Your task to perform on an android device: turn on airplane mode Image 0: 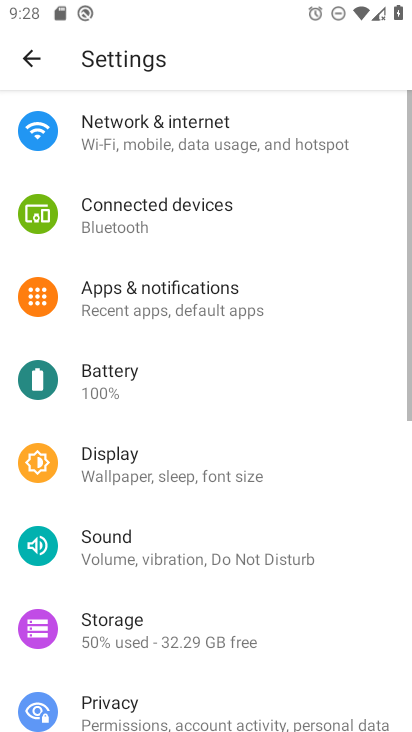
Step 0: press home button
Your task to perform on an android device: turn on airplane mode Image 1: 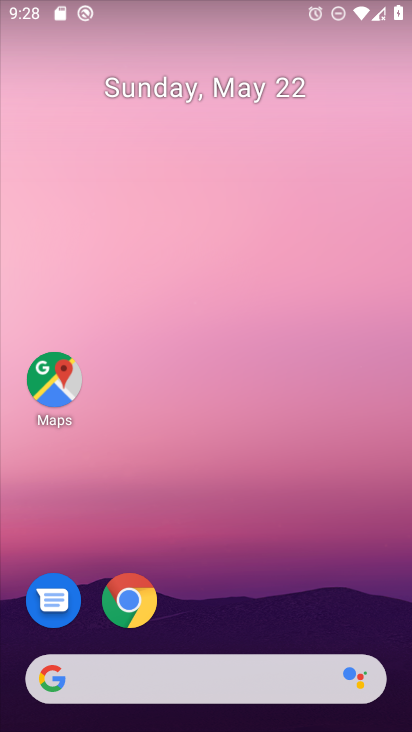
Step 1: drag from (240, 661) to (279, 272)
Your task to perform on an android device: turn on airplane mode Image 2: 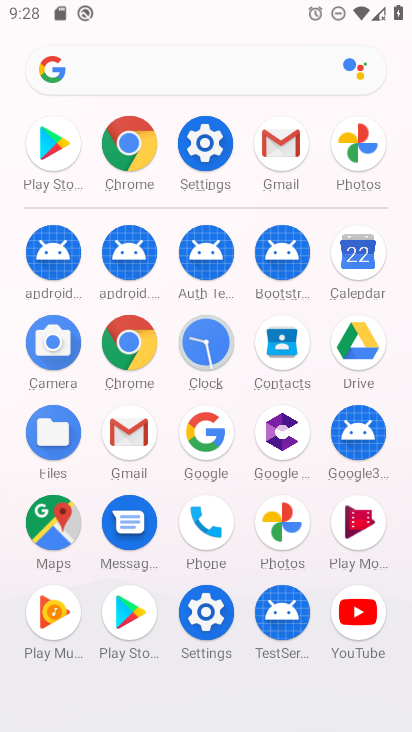
Step 2: click (204, 178)
Your task to perform on an android device: turn on airplane mode Image 3: 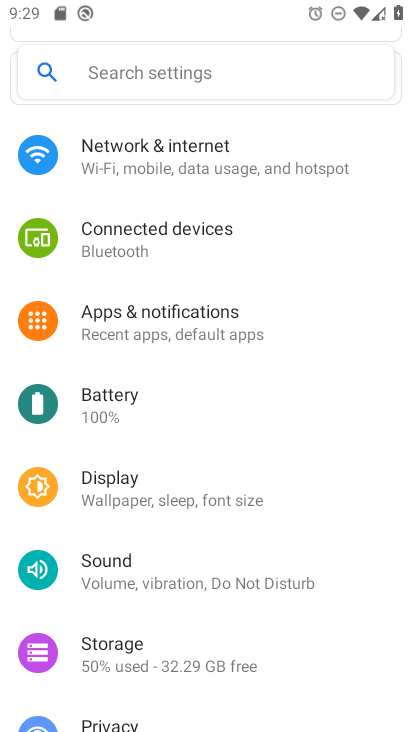
Step 3: click (264, 177)
Your task to perform on an android device: turn on airplane mode Image 4: 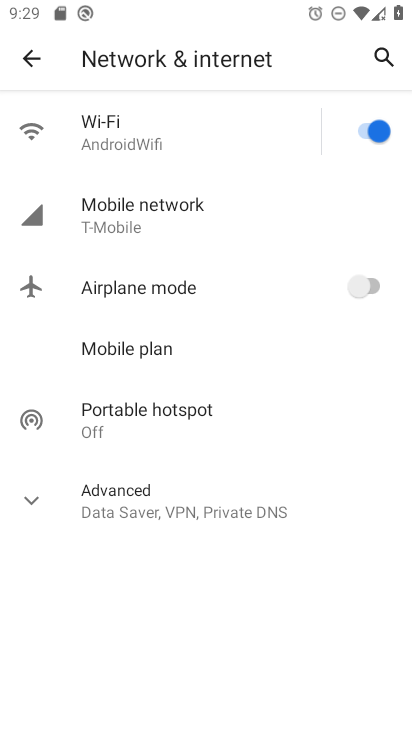
Step 4: click (242, 285)
Your task to perform on an android device: turn on airplane mode Image 5: 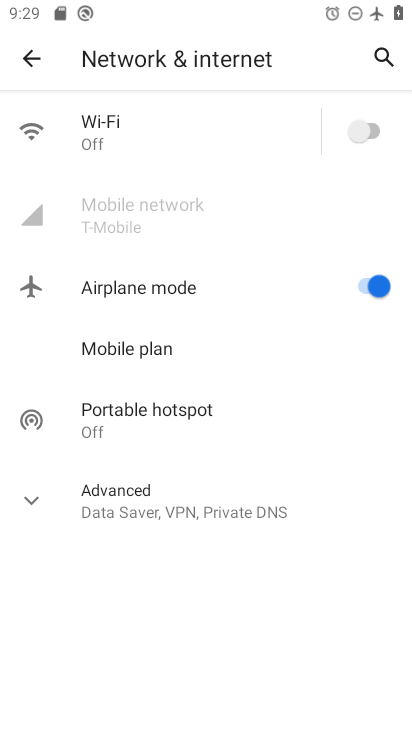
Step 5: task complete